Your task to perform on an android device: turn off priority inbox in the gmail app Image 0: 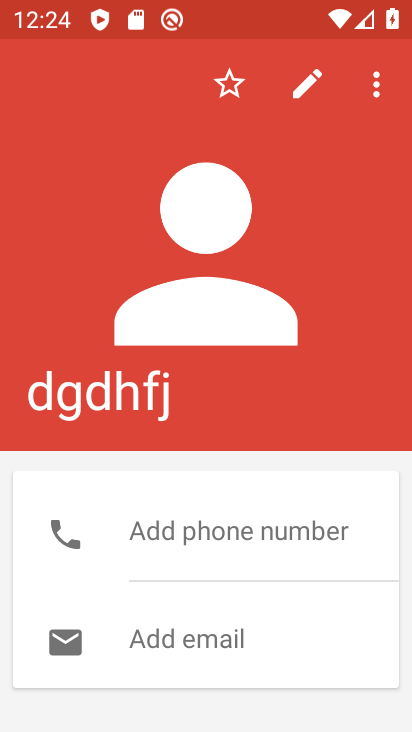
Step 0: press home button
Your task to perform on an android device: turn off priority inbox in the gmail app Image 1: 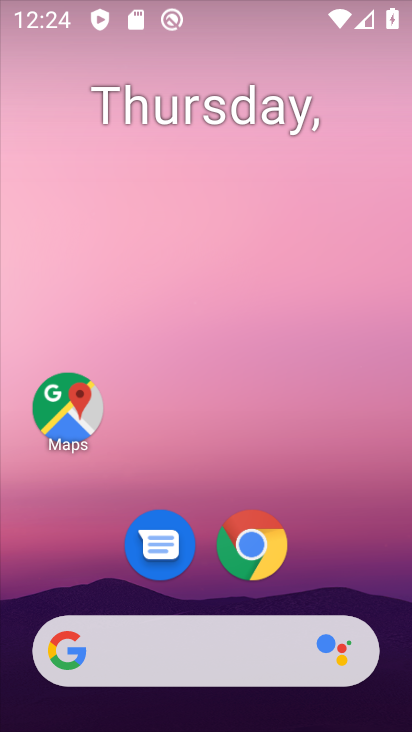
Step 1: drag from (282, 543) to (280, 306)
Your task to perform on an android device: turn off priority inbox in the gmail app Image 2: 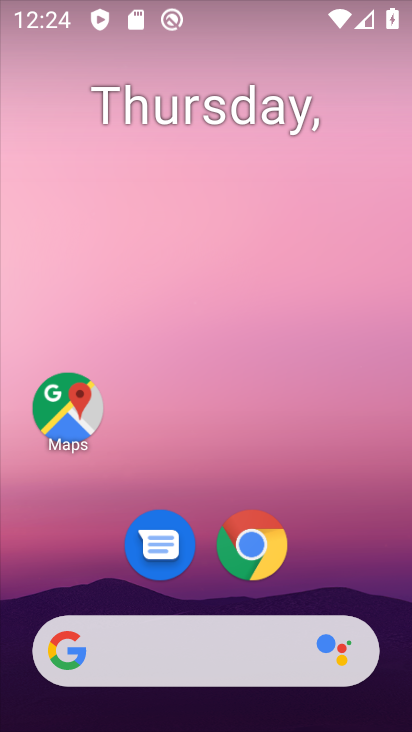
Step 2: drag from (217, 583) to (185, 180)
Your task to perform on an android device: turn off priority inbox in the gmail app Image 3: 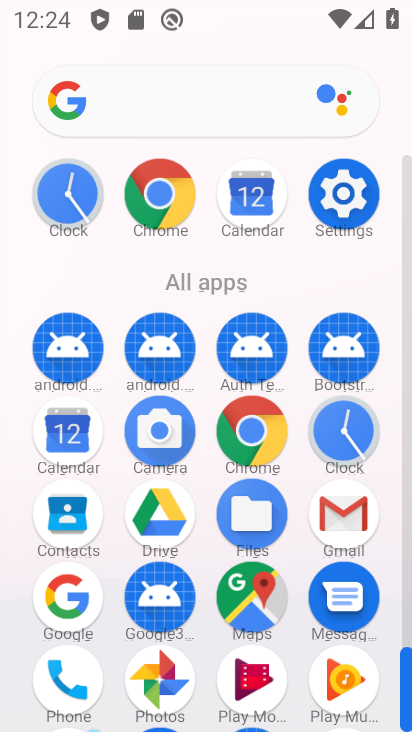
Step 3: click (327, 530)
Your task to perform on an android device: turn off priority inbox in the gmail app Image 4: 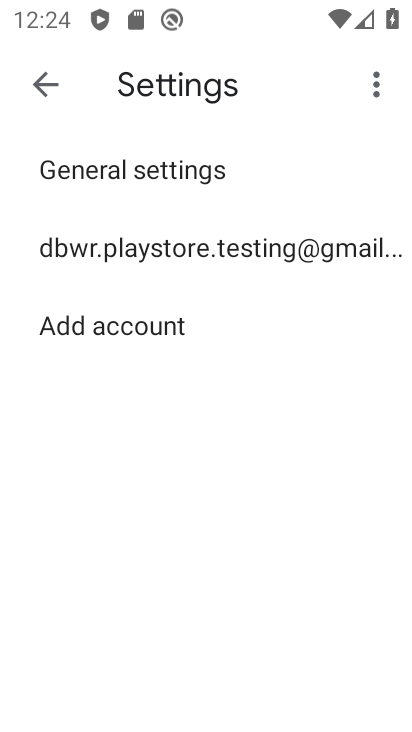
Step 4: click (182, 248)
Your task to perform on an android device: turn off priority inbox in the gmail app Image 5: 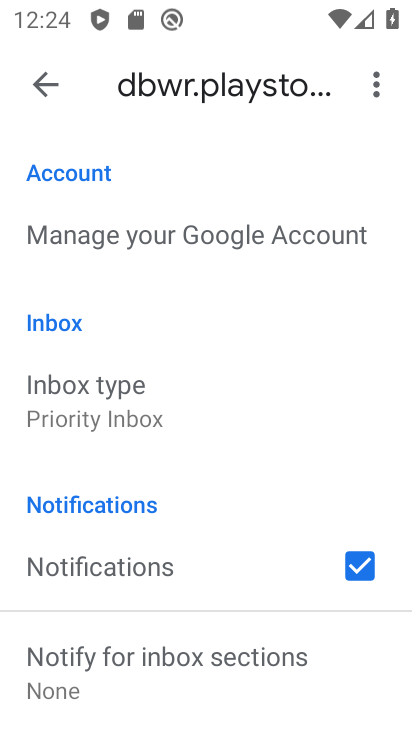
Step 5: click (96, 417)
Your task to perform on an android device: turn off priority inbox in the gmail app Image 6: 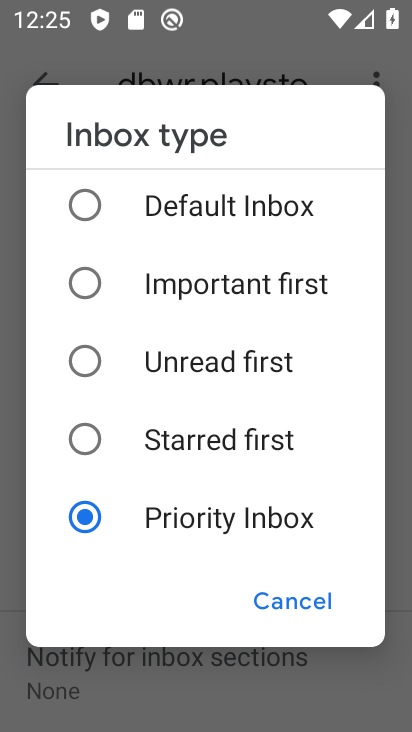
Step 6: click (181, 393)
Your task to perform on an android device: turn off priority inbox in the gmail app Image 7: 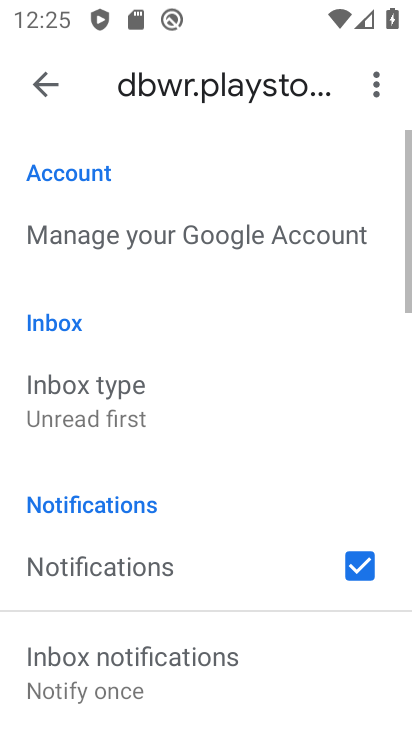
Step 7: task complete